Your task to perform on an android device: open a new tab in the chrome app Image 0: 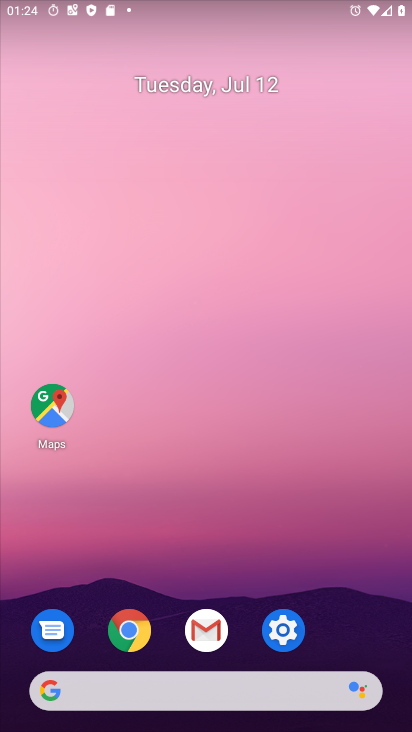
Step 0: drag from (310, 690) to (265, 145)
Your task to perform on an android device: open a new tab in the chrome app Image 1: 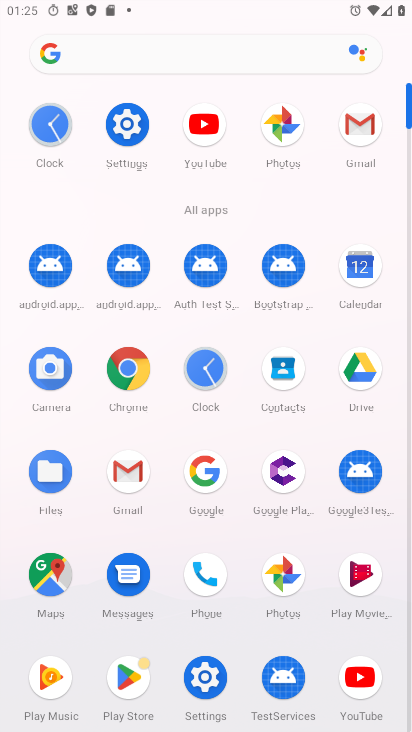
Step 1: click (121, 360)
Your task to perform on an android device: open a new tab in the chrome app Image 2: 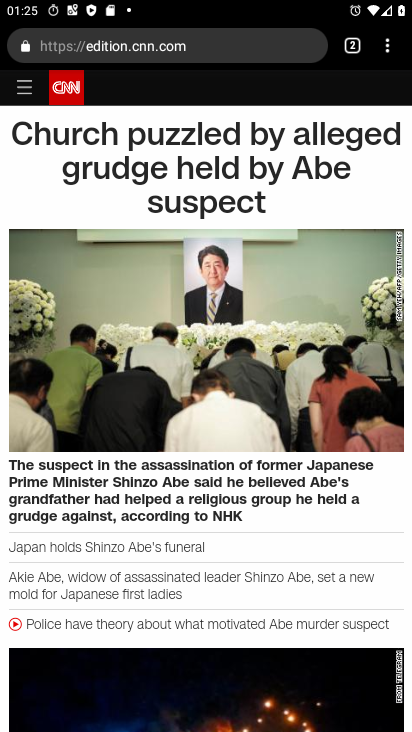
Step 2: click (386, 40)
Your task to perform on an android device: open a new tab in the chrome app Image 3: 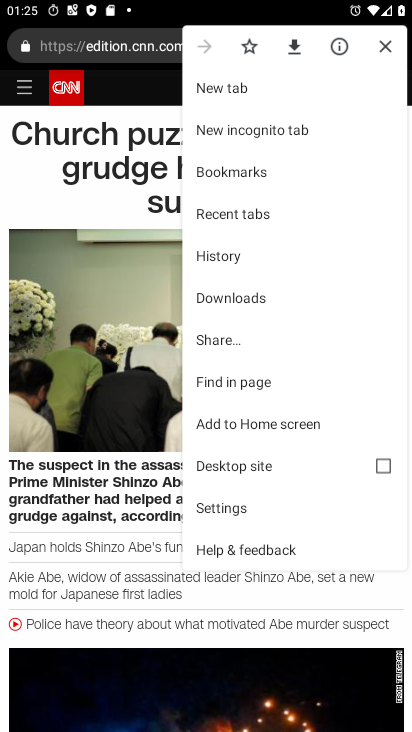
Step 3: click (258, 89)
Your task to perform on an android device: open a new tab in the chrome app Image 4: 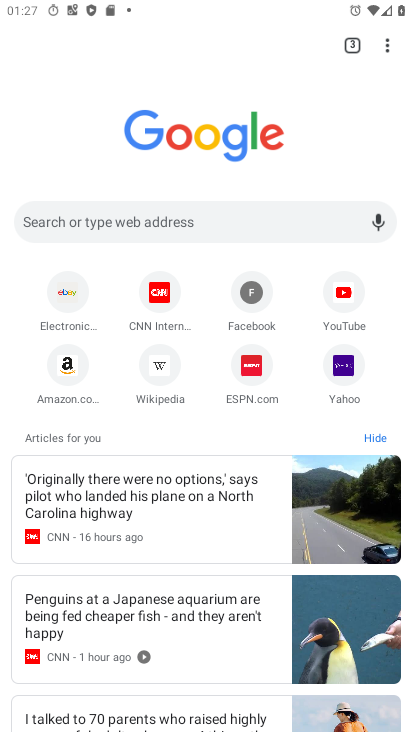
Step 4: task complete